Your task to perform on an android device: What's on my calendar tomorrow? Image 0: 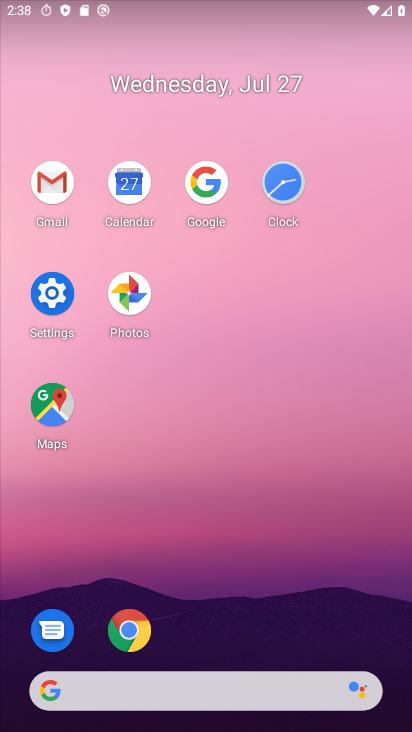
Step 0: click (131, 195)
Your task to perform on an android device: What's on my calendar tomorrow? Image 1: 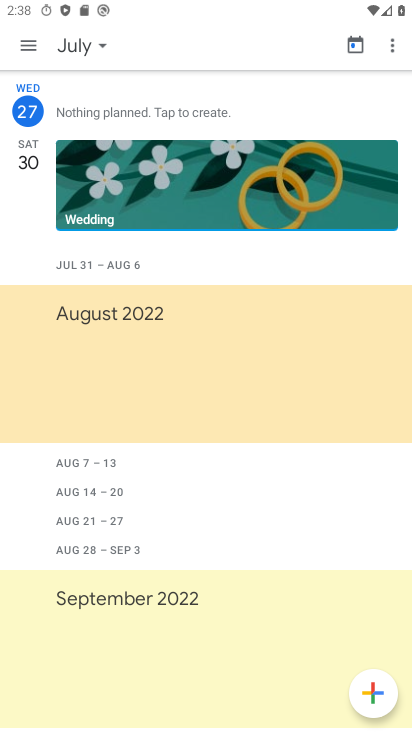
Step 1: click (71, 39)
Your task to perform on an android device: What's on my calendar tomorrow? Image 2: 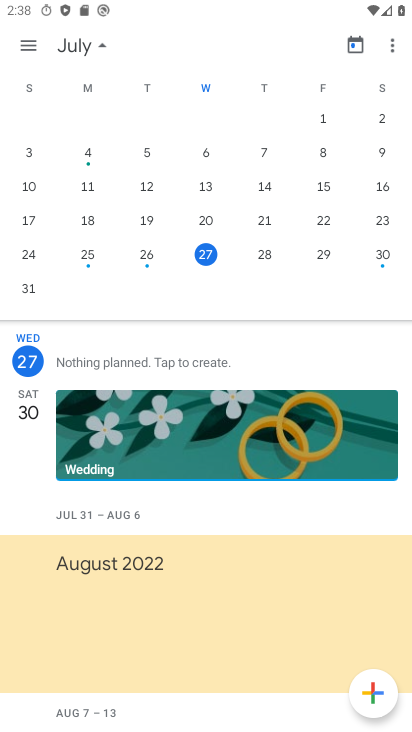
Step 2: click (257, 250)
Your task to perform on an android device: What's on my calendar tomorrow? Image 3: 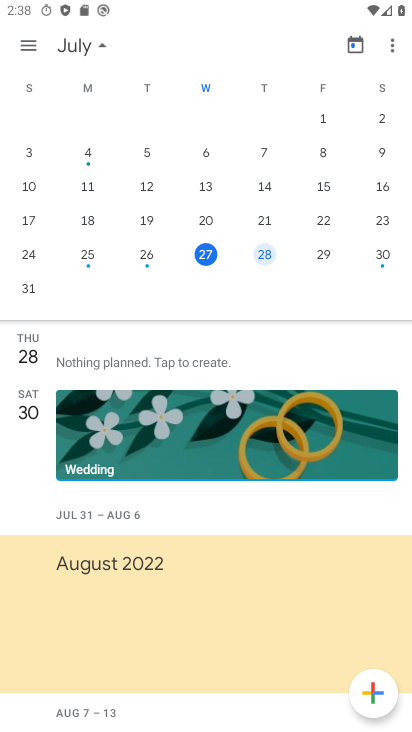
Step 3: task complete